Your task to perform on an android device: check storage Image 0: 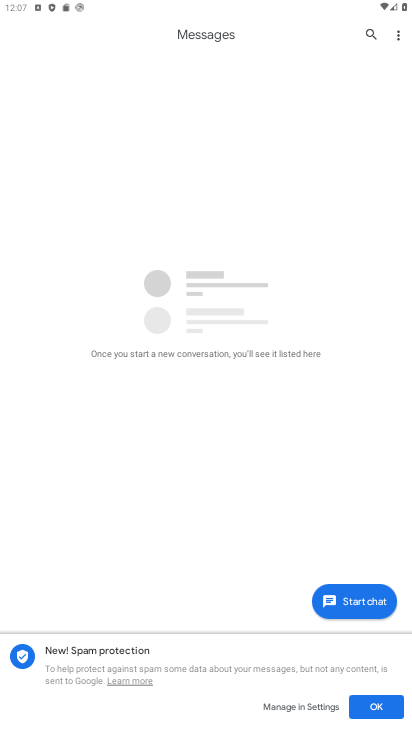
Step 0: press home button
Your task to perform on an android device: check storage Image 1: 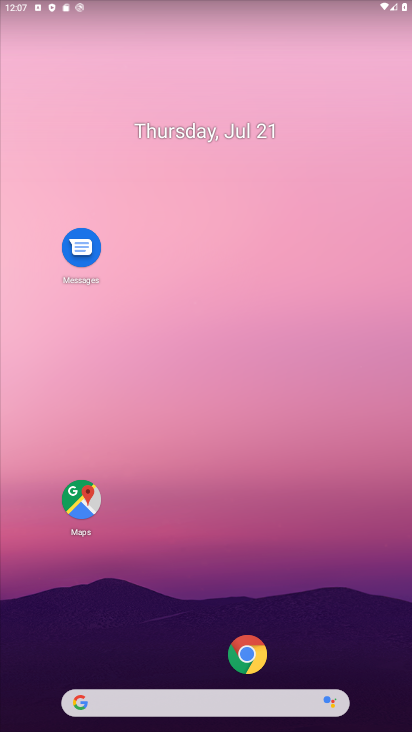
Step 1: drag from (162, 648) to (149, 279)
Your task to perform on an android device: check storage Image 2: 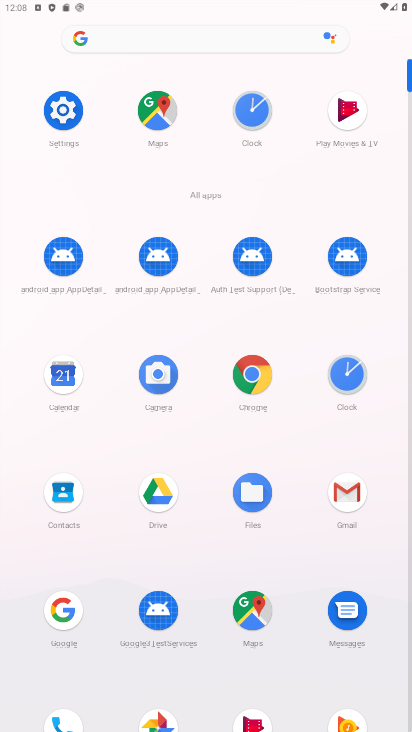
Step 2: click (55, 91)
Your task to perform on an android device: check storage Image 3: 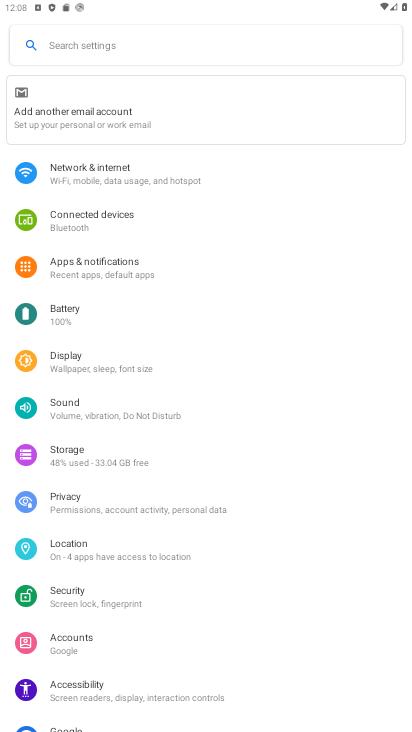
Step 3: click (89, 451)
Your task to perform on an android device: check storage Image 4: 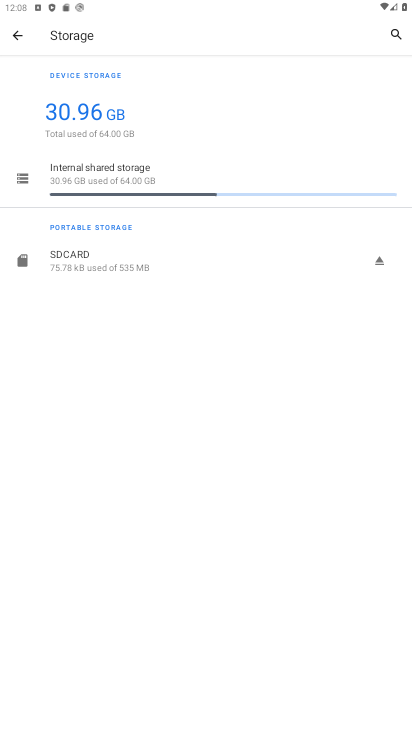
Step 4: task complete